Your task to perform on an android device: Go to Maps Image 0: 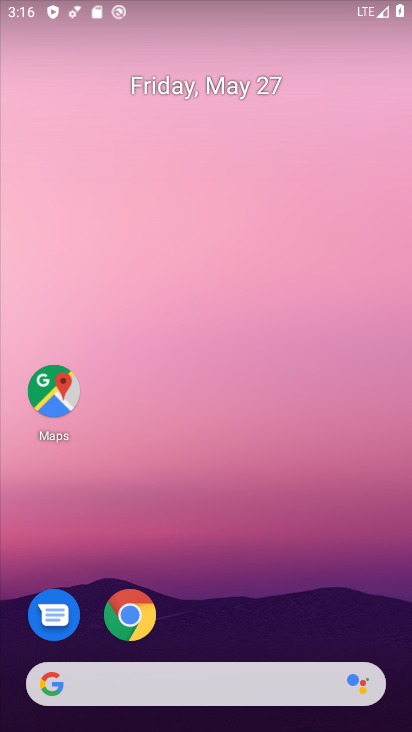
Step 0: click (47, 401)
Your task to perform on an android device: Go to Maps Image 1: 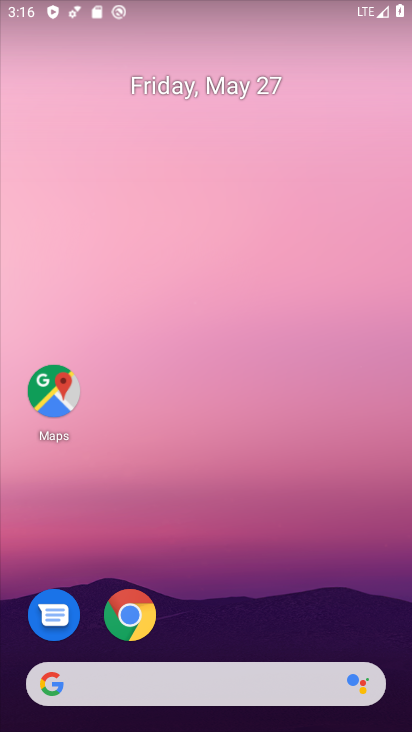
Step 1: click (47, 401)
Your task to perform on an android device: Go to Maps Image 2: 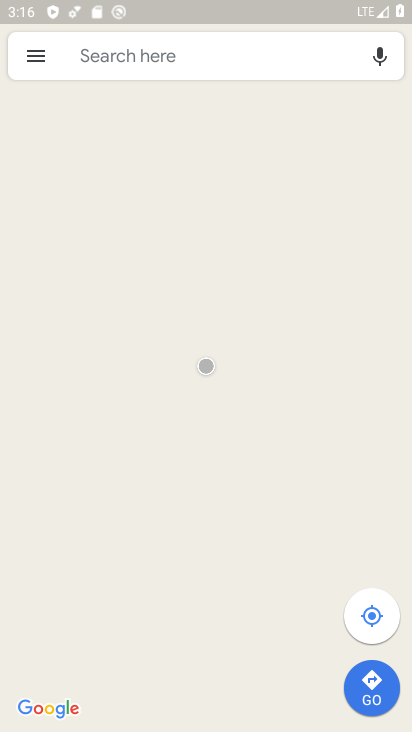
Step 2: task complete